Your task to perform on an android device: Go to battery settings Image 0: 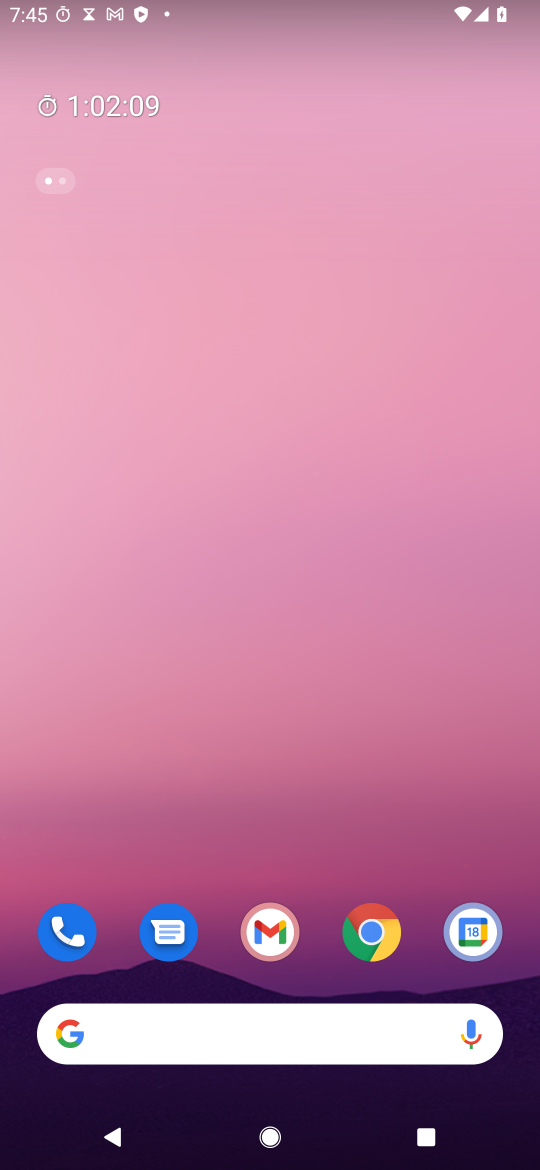
Step 0: drag from (374, 833) to (432, 58)
Your task to perform on an android device: Go to battery settings Image 1: 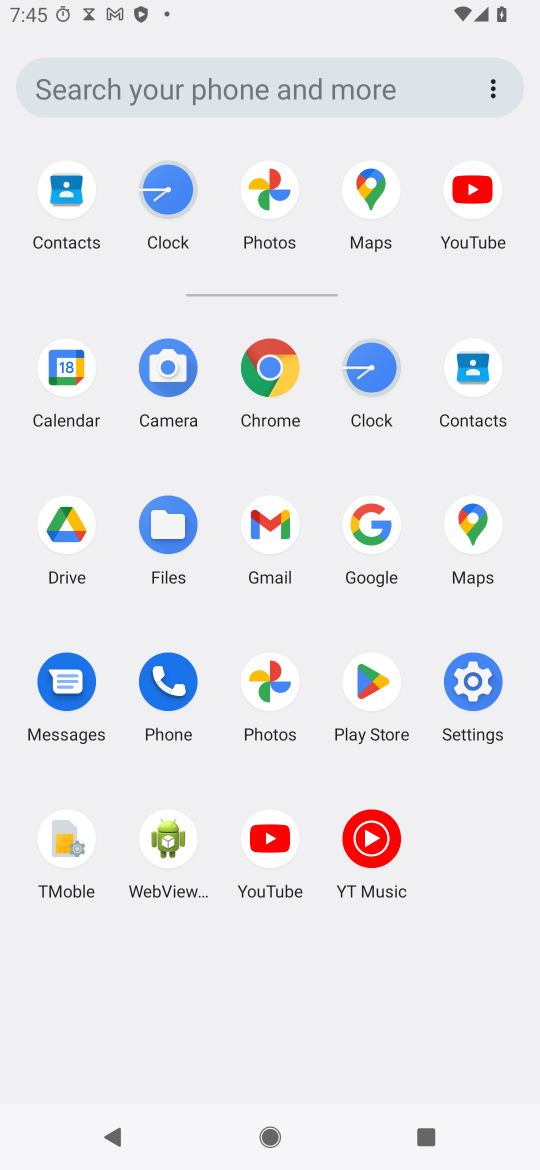
Step 1: click (466, 674)
Your task to perform on an android device: Go to battery settings Image 2: 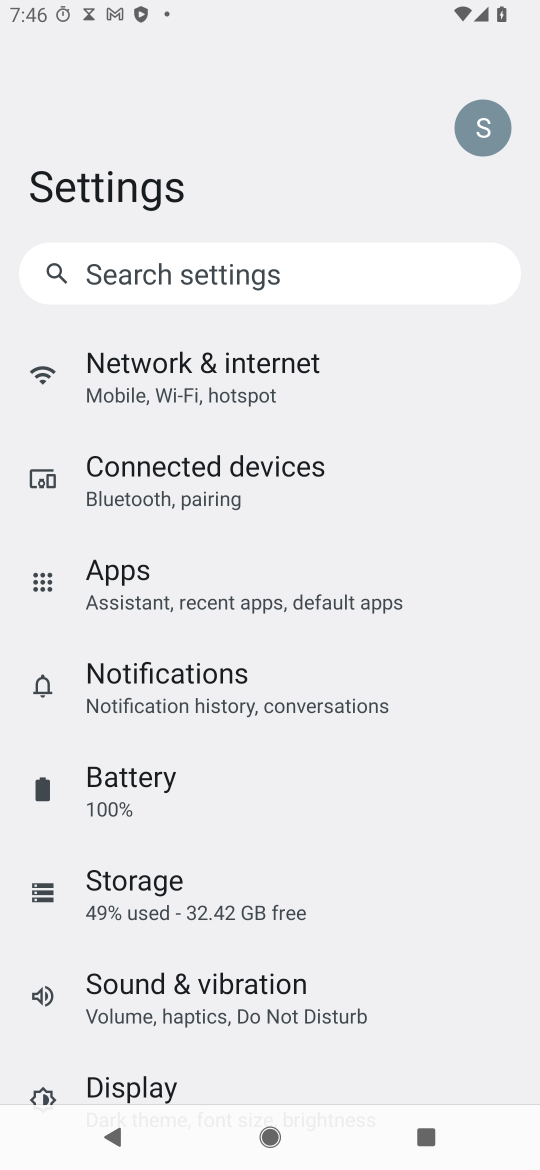
Step 2: click (167, 791)
Your task to perform on an android device: Go to battery settings Image 3: 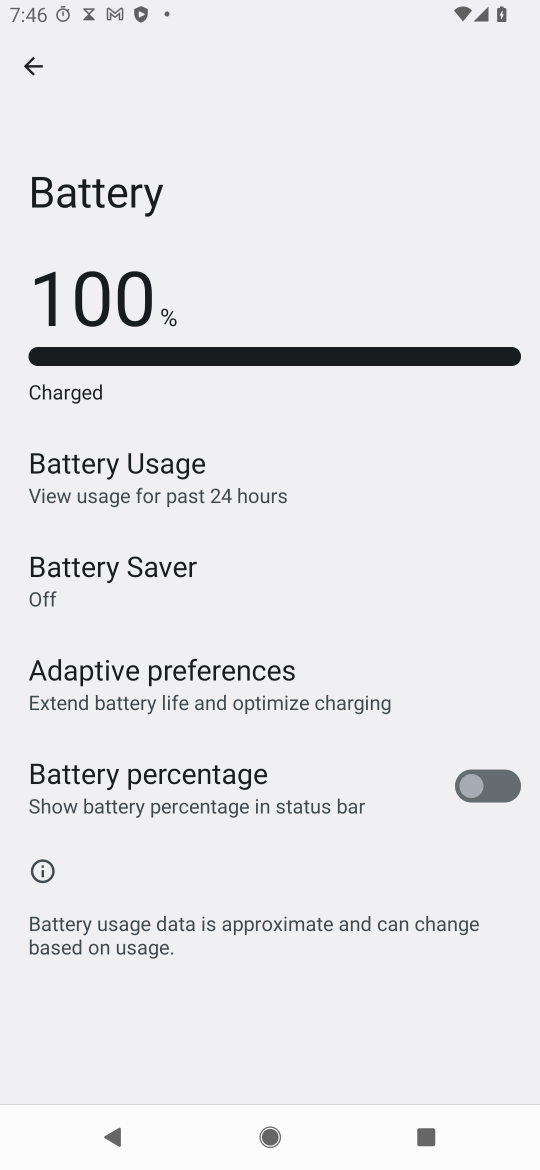
Step 3: task complete